Your task to perform on an android device: refresh tabs in the chrome app Image 0: 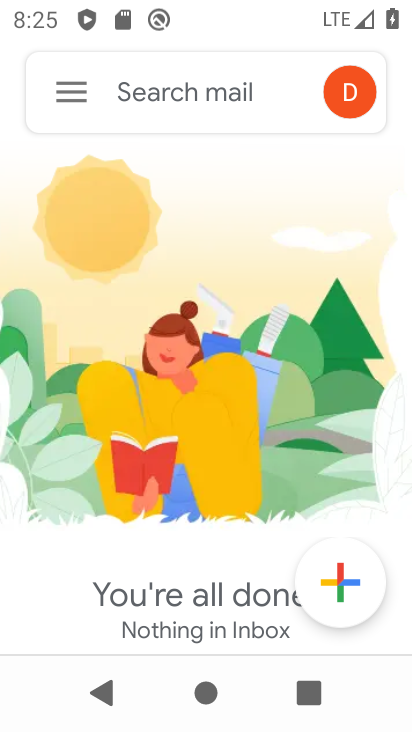
Step 0: drag from (329, 518) to (45, 32)
Your task to perform on an android device: refresh tabs in the chrome app Image 1: 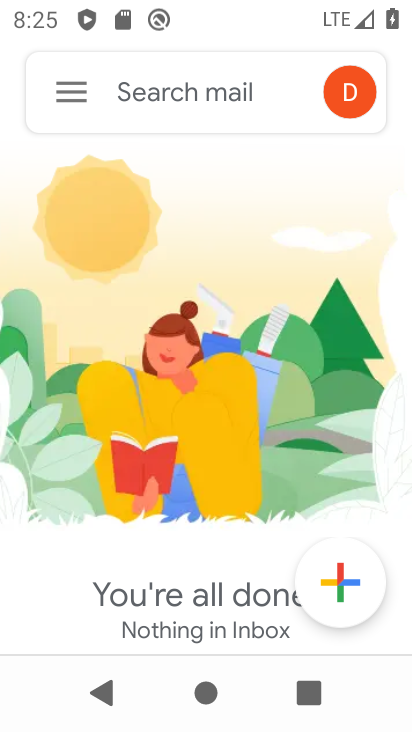
Step 1: drag from (286, 535) to (7, 9)
Your task to perform on an android device: refresh tabs in the chrome app Image 2: 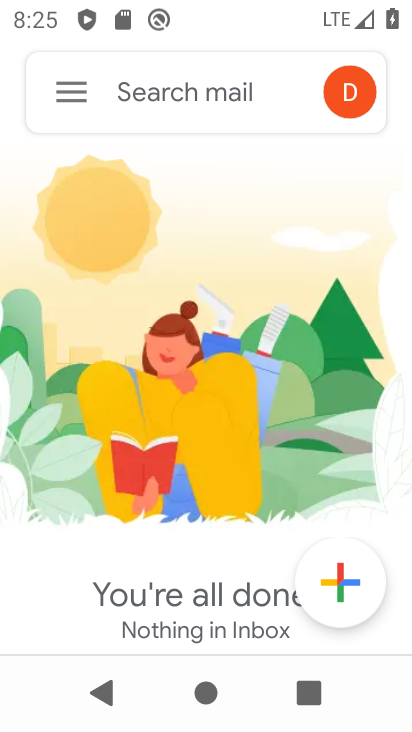
Step 2: drag from (304, 459) to (57, 27)
Your task to perform on an android device: refresh tabs in the chrome app Image 3: 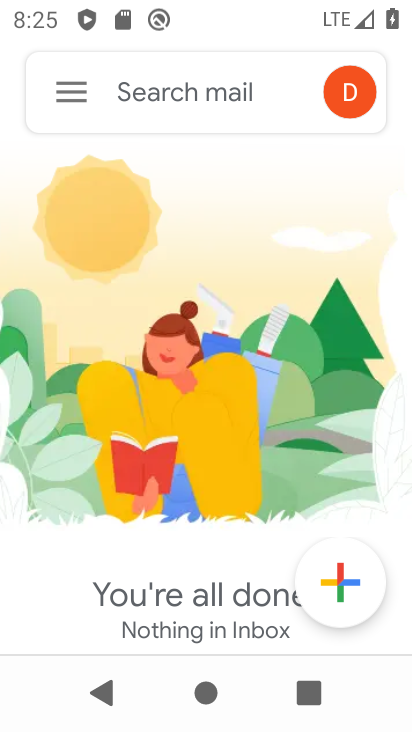
Step 3: drag from (245, 440) to (45, 6)
Your task to perform on an android device: refresh tabs in the chrome app Image 4: 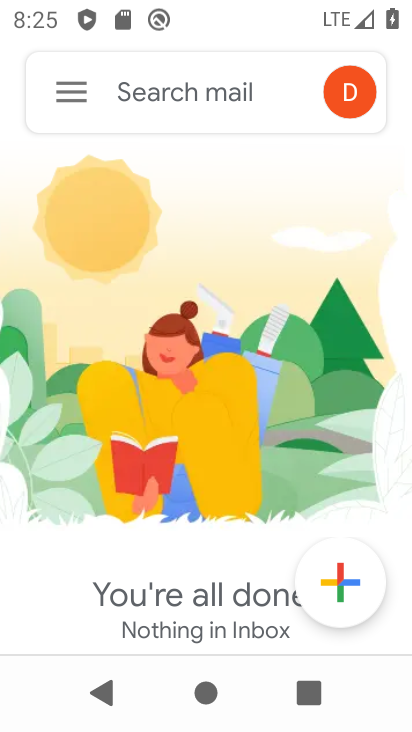
Step 4: drag from (233, 433) to (60, 32)
Your task to perform on an android device: refresh tabs in the chrome app Image 5: 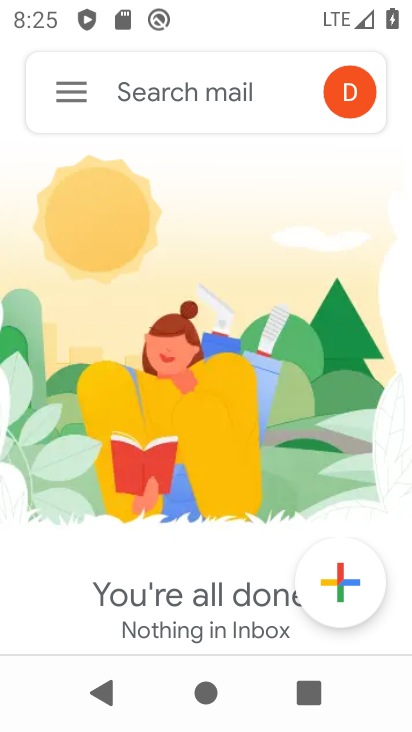
Step 5: drag from (205, 438) to (88, 57)
Your task to perform on an android device: refresh tabs in the chrome app Image 6: 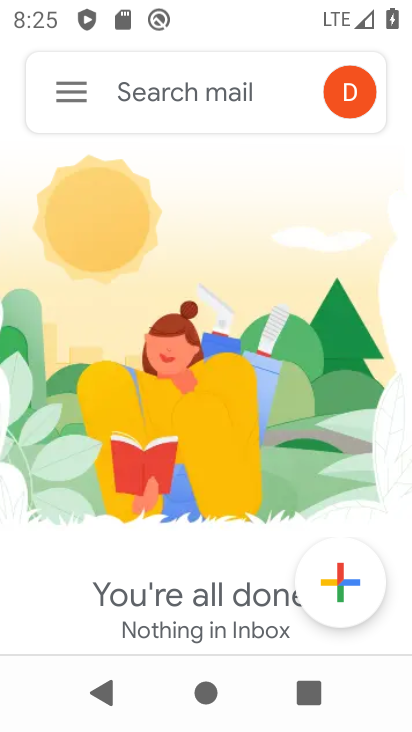
Step 6: drag from (285, 414) to (114, 31)
Your task to perform on an android device: refresh tabs in the chrome app Image 7: 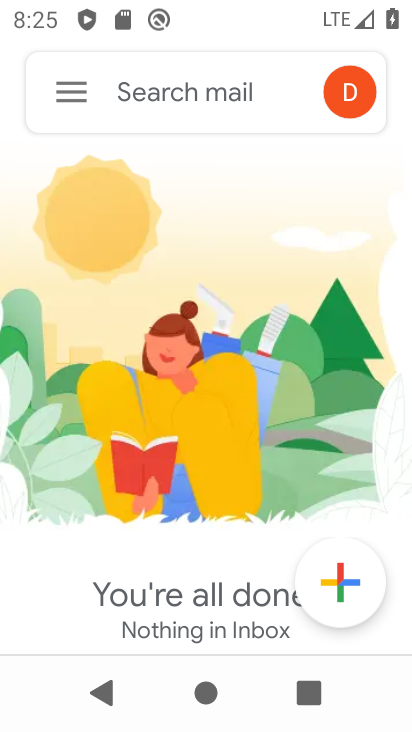
Step 7: drag from (298, 614) to (169, 128)
Your task to perform on an android device: refresh tabs in the chrome app Image 8: 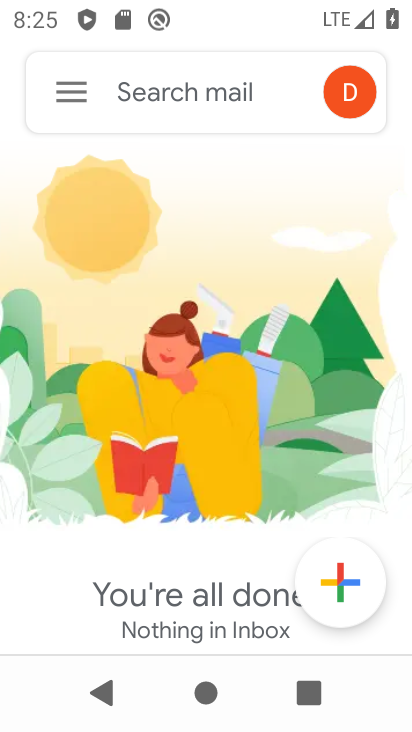
Step 8: click (60, 76)
Your task to perform on an android device: refresh tabs in the chrome app Image 9: 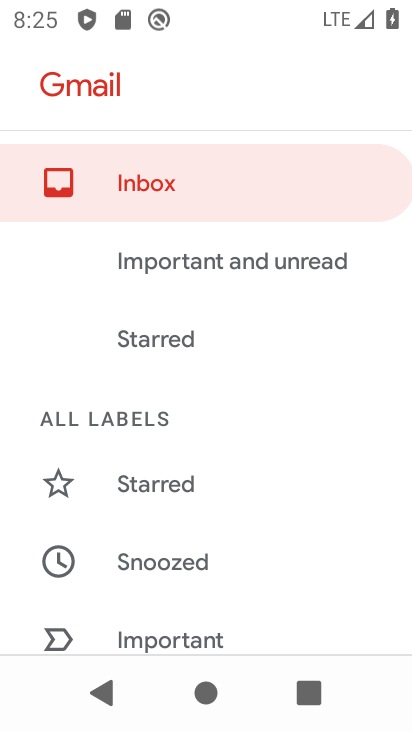
Step 9: press back button
Your task to perform on an android device: refresh tabs in the chrome app Image 10: 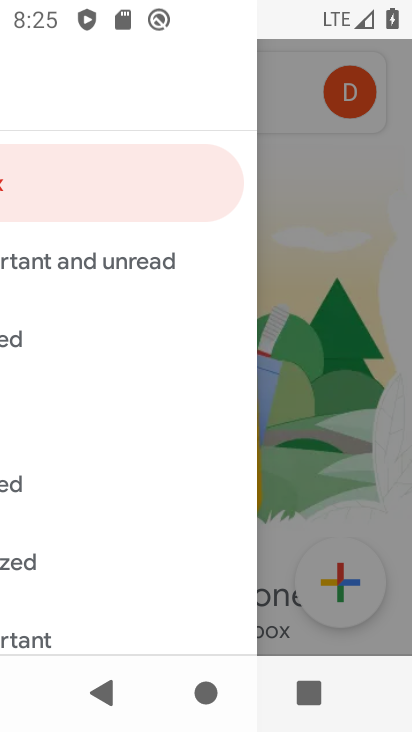
Step 10: press back button
Your task to perform on an android device: refresh tabs in the chrome app Image 11: 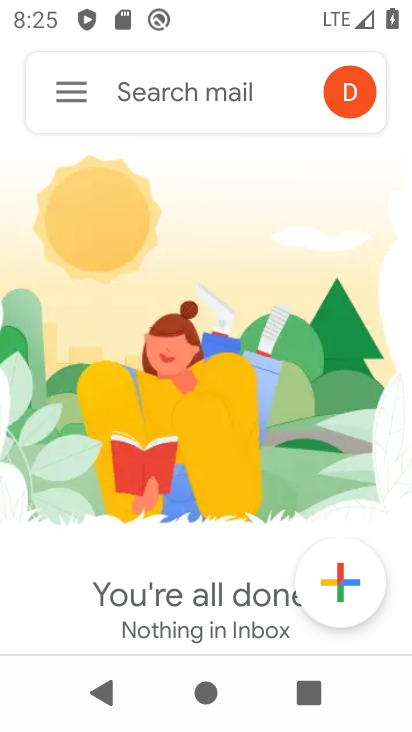
Step 11: press back button
Your task to perform on an android device: refresh tabs in the chrome app Image 12: 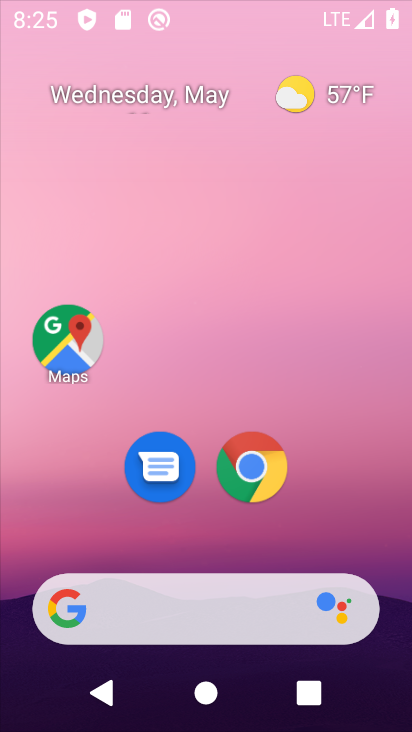
Step 12: press back button
Your task to perform on an android device: refresh tabs in the chrome app Image 13: 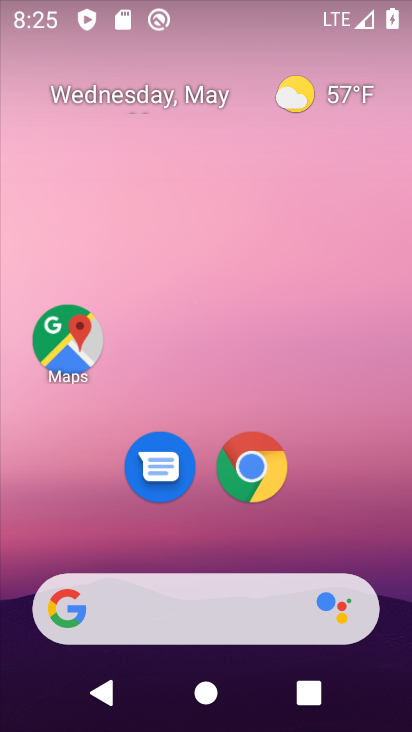
Step 13: press back button
Your task to perform on an android device: refresh tabs in the chrome app Image 14: 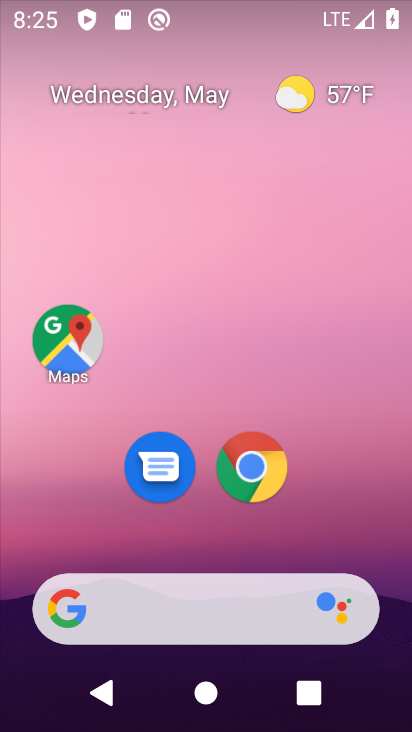
Step 14: drag from (114, 108) to (115, 13)
Your task to perform on an android device: refresh tabs in the chrome app Image 15: 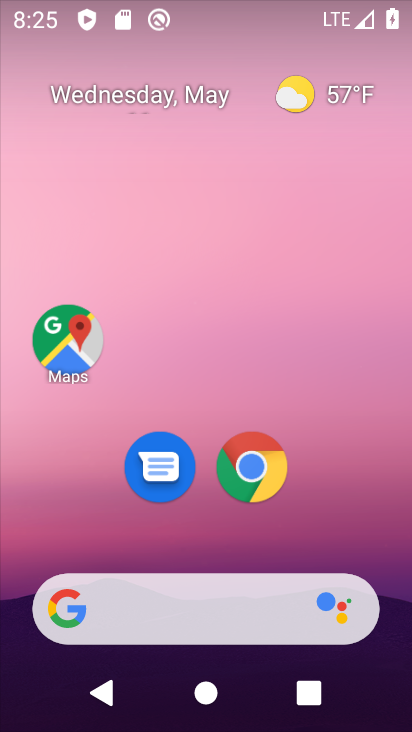
Step 15: drag from (228, 465) to (126, 57)
Your task to perform on an android device: refresh tabs in the chrome app Image 16: 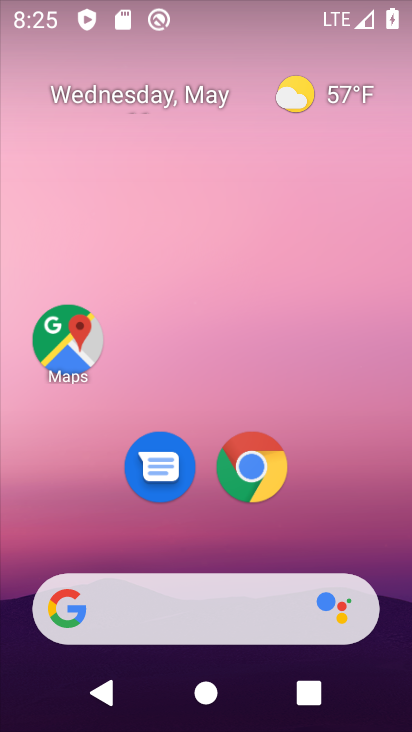
Step 16: drag from (294, 431) to (246, 30)
Your task to perform on an android device: refresh tabs in the chrome app Image 17: 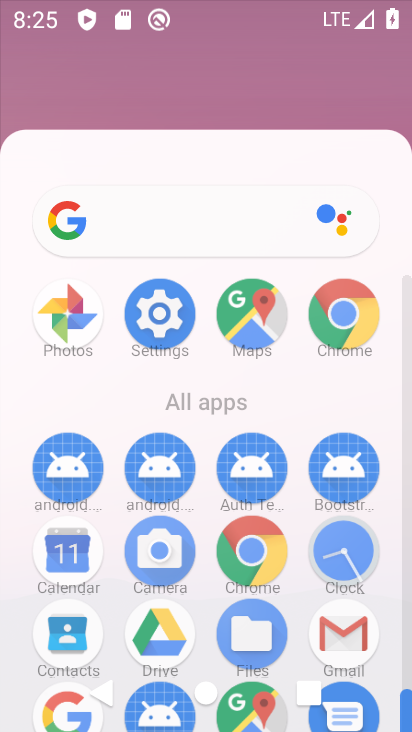
Step 17: drag from (288, 500) to (63, 1)
Your task to perform on an android device: refresh tabs in the chrome app Image 18: 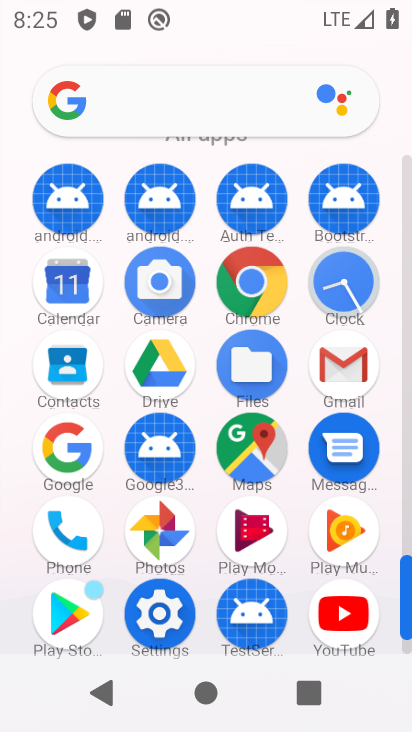
Step 18: click (242, 290)
Your task to perform on an android device: refresh tabs in the chrome app Image 19: 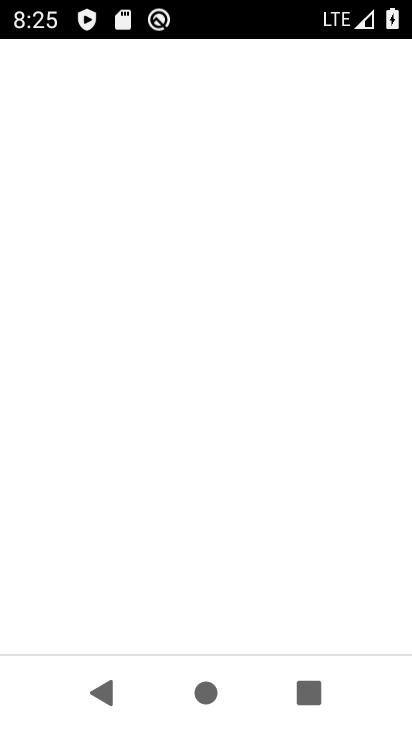
Step 19: click (243, 289)
Your task to perform on an android device: refresh tabs in the chrome app Image 20: 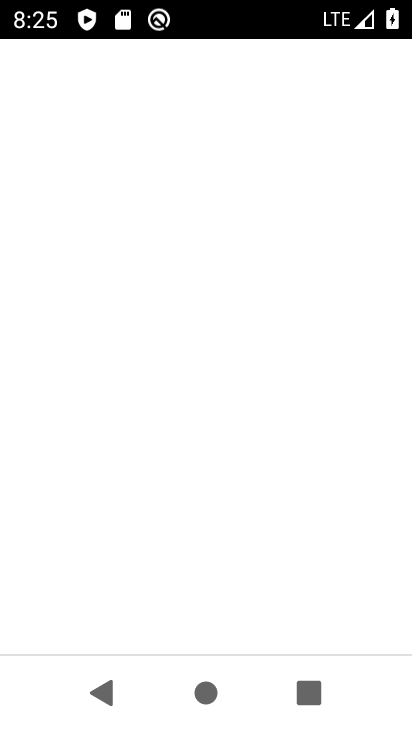
Step 20: click (250, 306)
Your task to perform on an android device: refresh tabs in the chrome app Image 21: 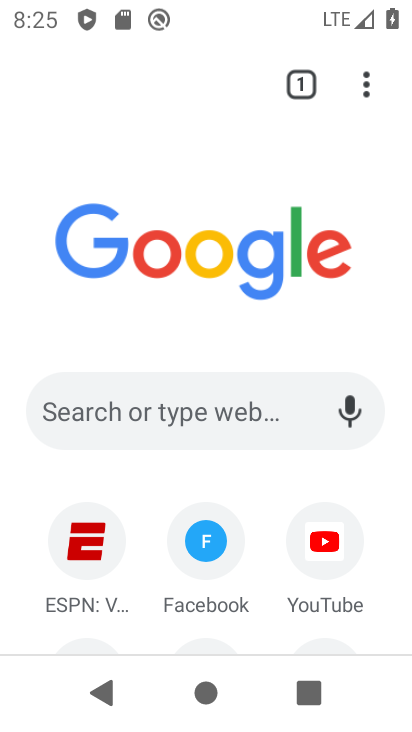
Step 21: drag from (283, 424) to (171, 17)
Your task to perform on an android device: refresh tabs in the chrome app Image 22: 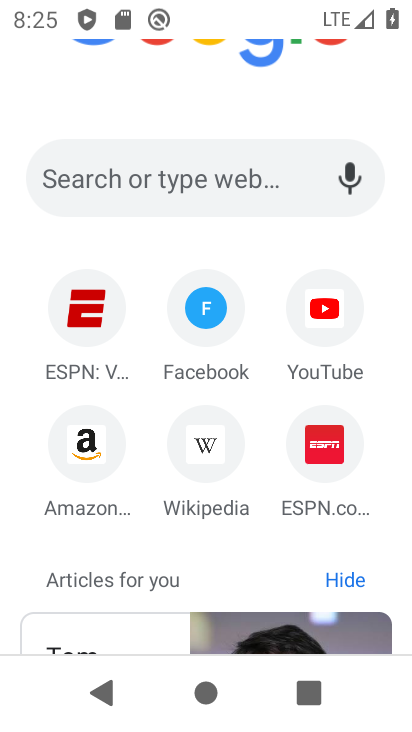
Step 22: drag from (188, 319) to (136, 34)
Your task to perform on an android device: refresh tabs in the chrome app Image 23: 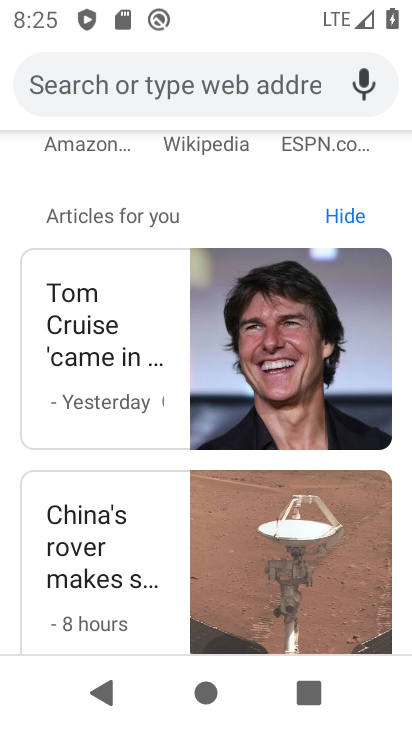
Step 23: drag from (297, 417) to (176, 51)
Your task to perform on an android device: refresh tabs in the chrome app Image 24: 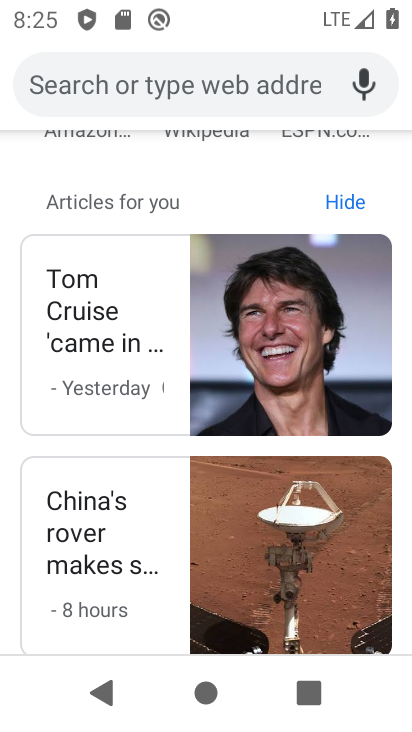
Step 24: drag from (198, 376) to (223, 440)
Your task to perform on an android device: refresh tabs in the chrome app Image 25: 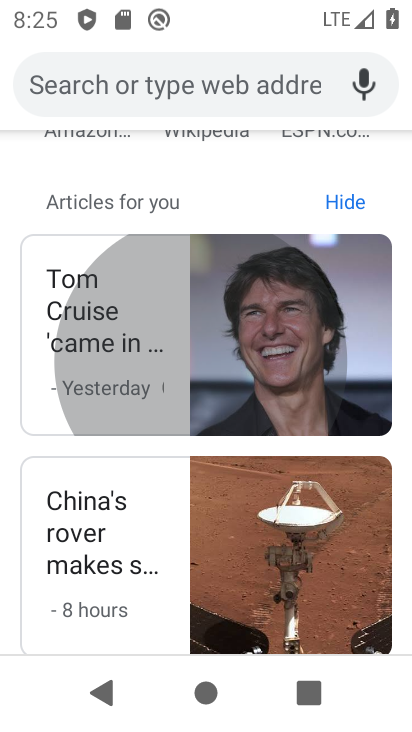
Step 25: drag from (258, 252) to (253, 425)
Your task to perform on an android device: refresh tabs in the chrome app Image 26: 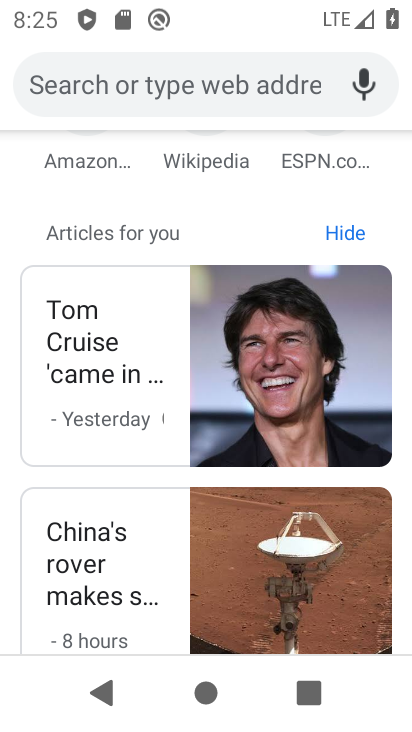
Step 26: drag from (191, 194) to (226, 451)
Your task to perform on an android device: refresh tabs in the chrome app Image 27: 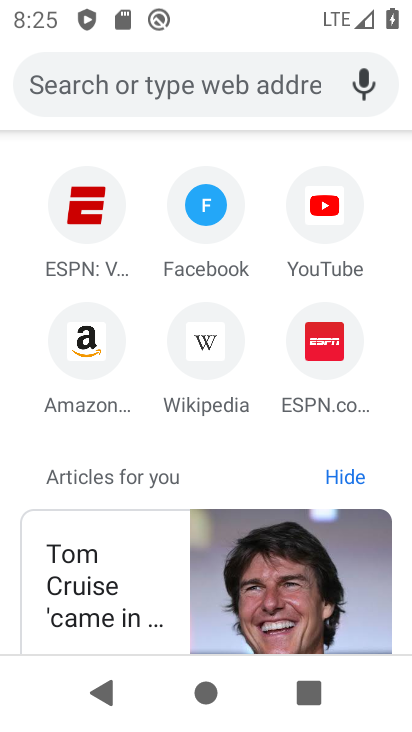
Step 27: drag from (196, 245) to (207, 512)
Your task to perform on an android device: refresh tabs in the chrome app Image 28: 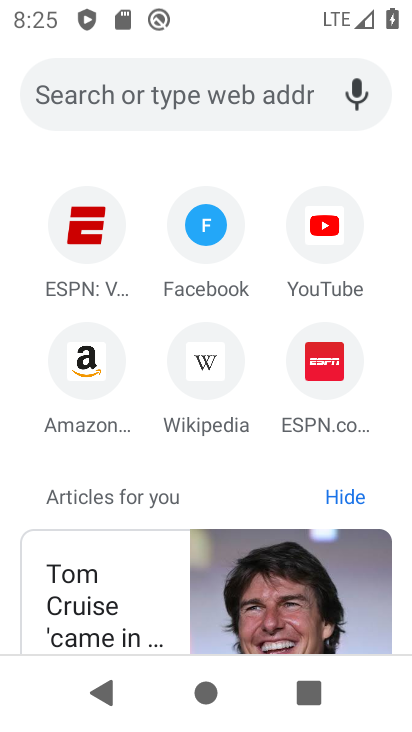
Step 28: drag from (206, 375) to (230, 525)
Your task to perform on an android device: refresh tabs in the chrome app Image 29: 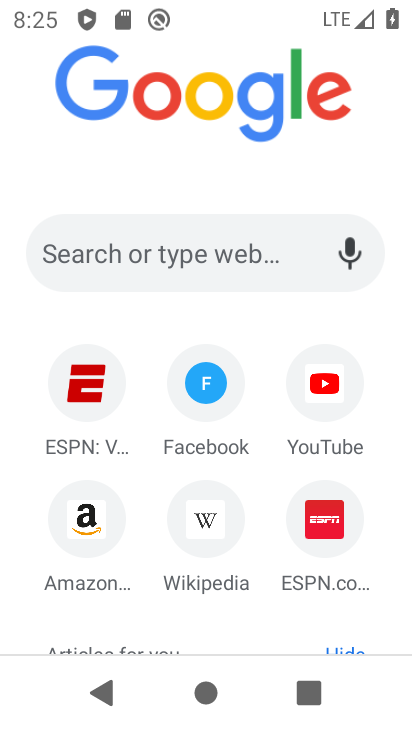
Step 29: drag from (170, 264) to (187, 544)
Your task to perform on an android device: refresh tabs in the chrome app Image 30: 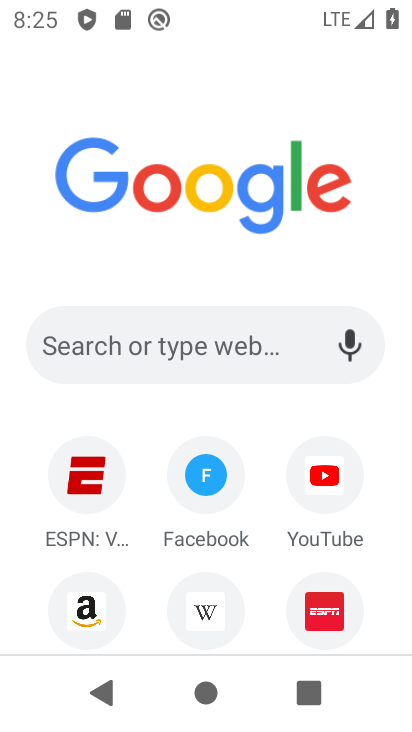
Step 30: drag from (181, 176) to (215, 556)
Your task to perform on an android device: refresh tabs in the chrome app Image 31: 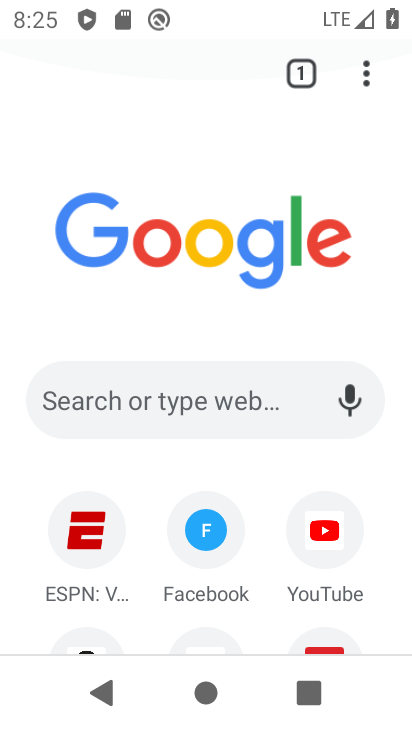
Step 31: drag from (238, 522) to (250, 557)
Your task to perform on an android device: refresh tabs in the chrome app Image 32: 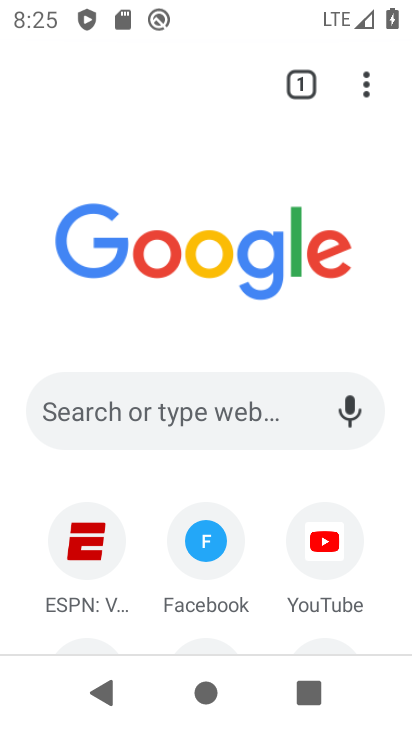
Step 32: drag from (178, 218) to (218, 433)
Your task to perform on an android device: refresh tabs in the chrome app Image 33: 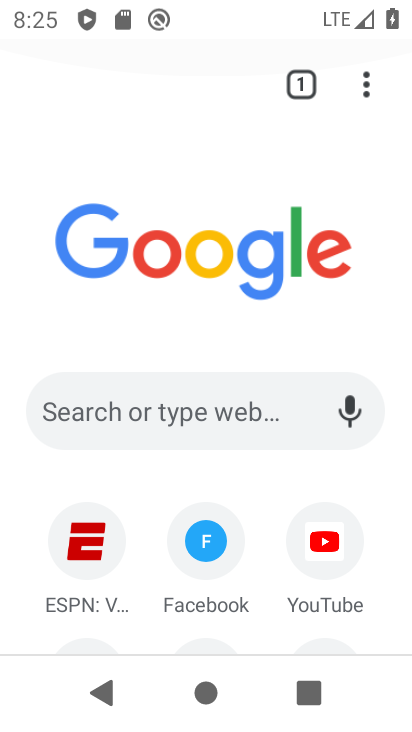
Step 33: drag from (202, 214) to (247, 509)
Your task to perform on an android device: refresh tabs in the chrome app Image 34: 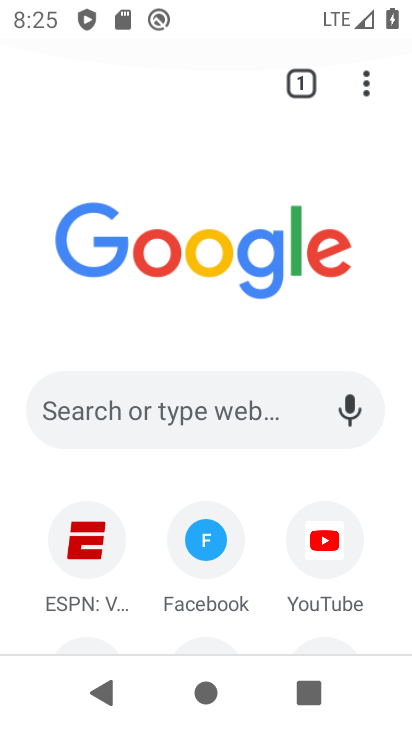
Step 34: drag from (203, 447) to (243, 580)
Your task to perform on an android device: refresh tabs in the chrome app Image 35: 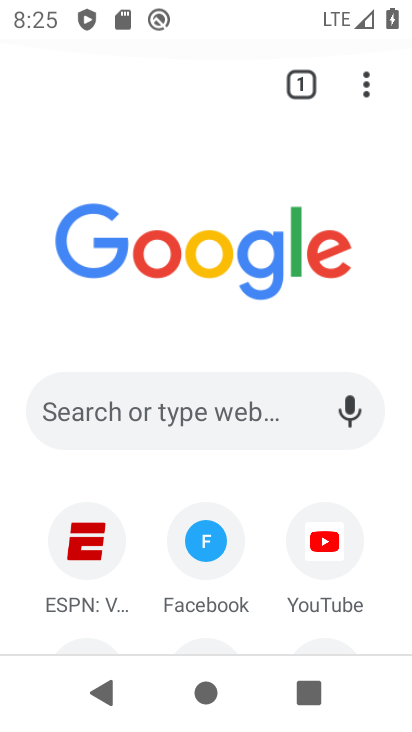
Step 35: drag from (229, 511) to (129, 70)
Your task to perform on an android device: refresh tabs in the chrome app Image 36: 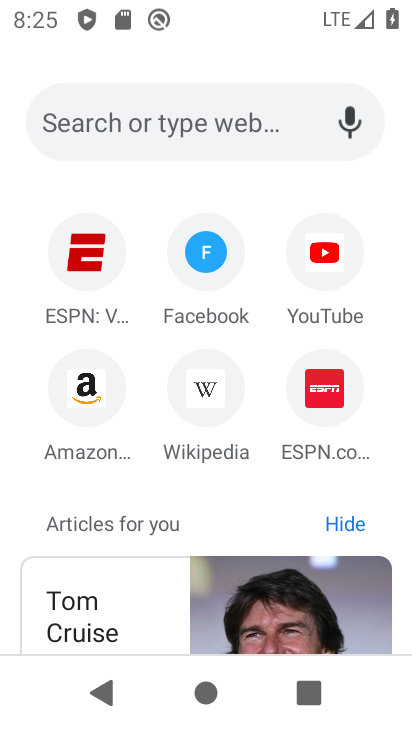
Step 36: drag from (175, 393) to (109, 101)
Your task to perform on an android device: refresh tabs in the chrome app Image 37: 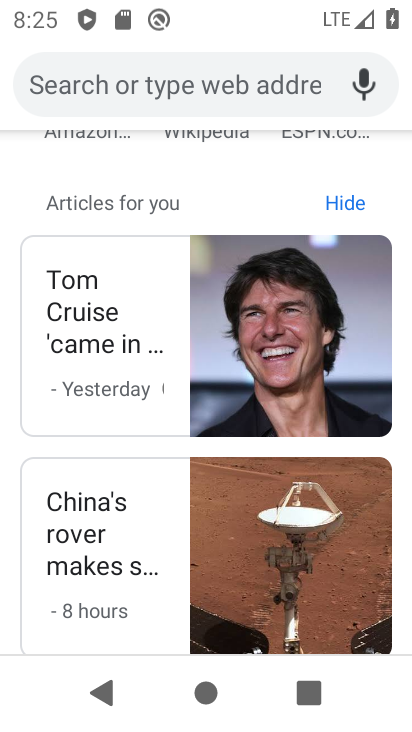
Step 37: drag from (226, 448) to (117, 0)
Your task to perform on an android device: refresh tabs in the chrome app Image 38: 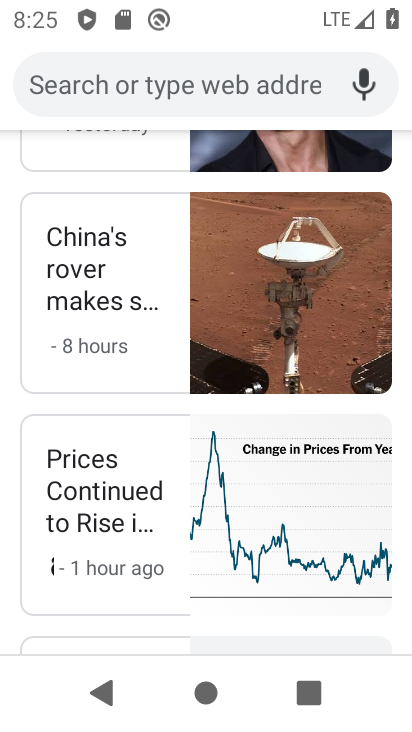
Step 38: drag from (264, 510) to (101, 17)
Your task to perform on an android device: refresh tabs in the chrome app Image 39: 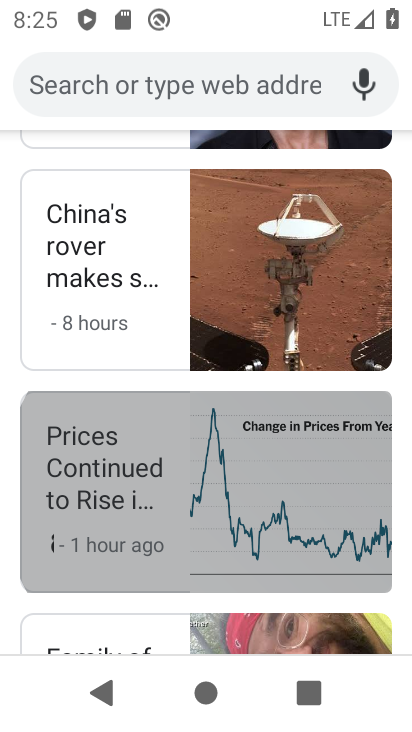
Step 39: drag from (224, 563) to (77, 44)
Your task to perform on an android device: refresh tabs in the chrome app Image 40: 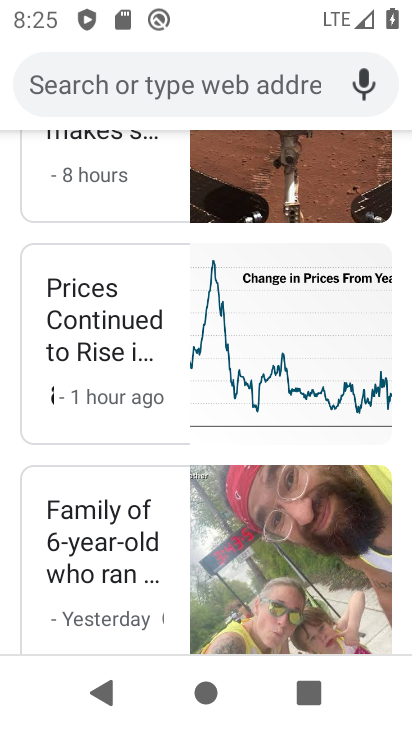
Step 40: drag from (279, 181) to (324, 592)
Your task to perform on an android device: refresh tabs in the chrome app Image 41: 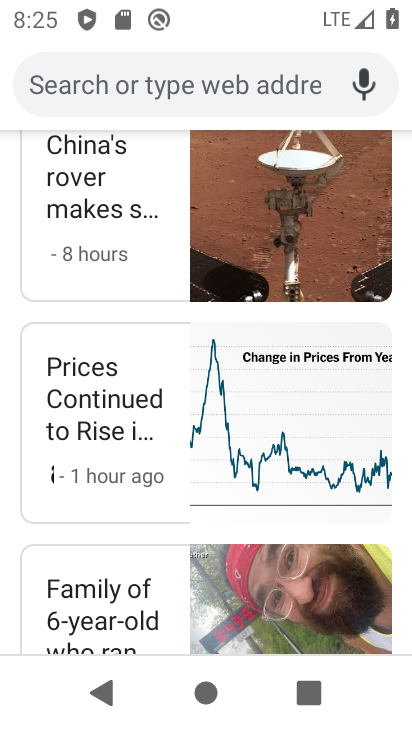
Step 41: drag from (280, 500) to (231, 481)
Your task to perform on an android device: refresh tabs in the chrome app Image 42: 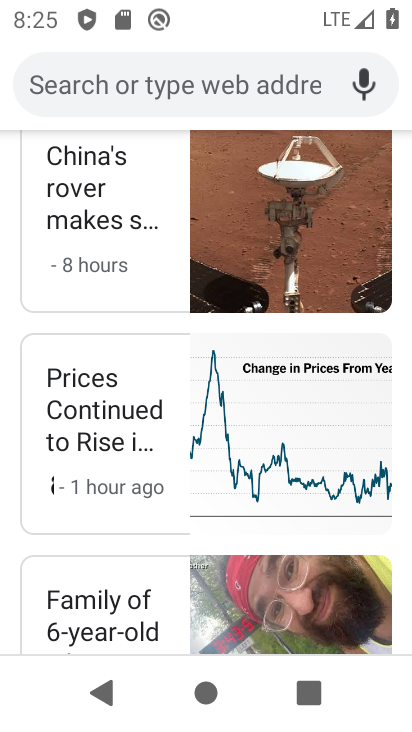
Step 42: drag from (213, 226) to (260, 575)
Your task to perform on an android device: refresh tabs in the chrome app Image 43: 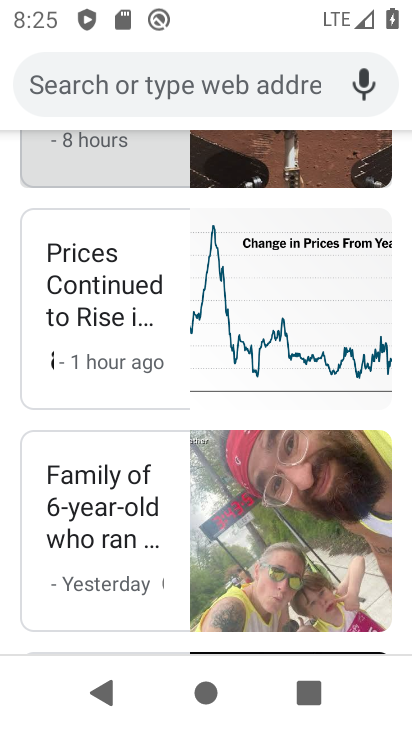
Step 43: drag from (220, 220) to (258, 598)
Your task to perform on an android device: refresh tabs in the chrome app Image 44: 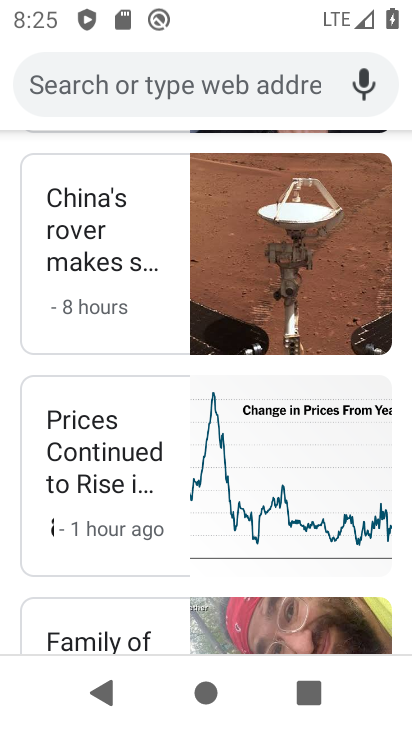
Step 44: drag from (259, 505) to (234, 598)
Your task to perform on an android device: refresh tabs in the chrome app Image 45: 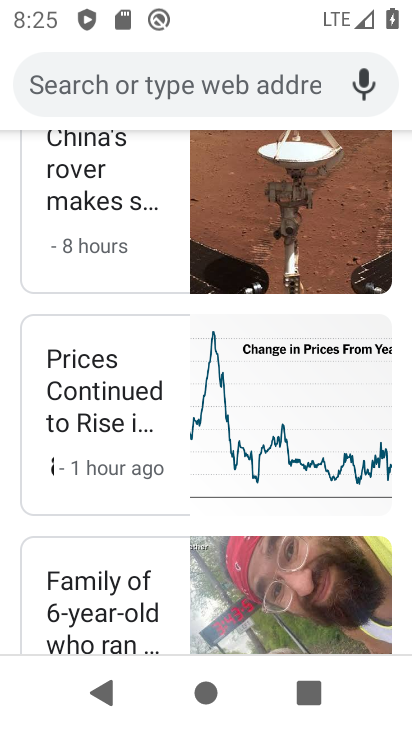
Step 45: drag from (180, 260) to (259, 600)
Your task to perform on an android device: refresh tabs in the chrome app Image 46: 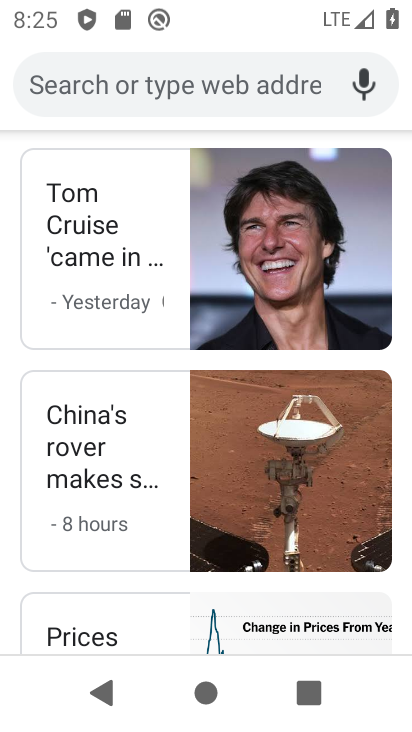
Step 46: drag from (191, 202) to (202, 523)
Your task to perform on an android device: refresh tabs in the chrome app Image 47: 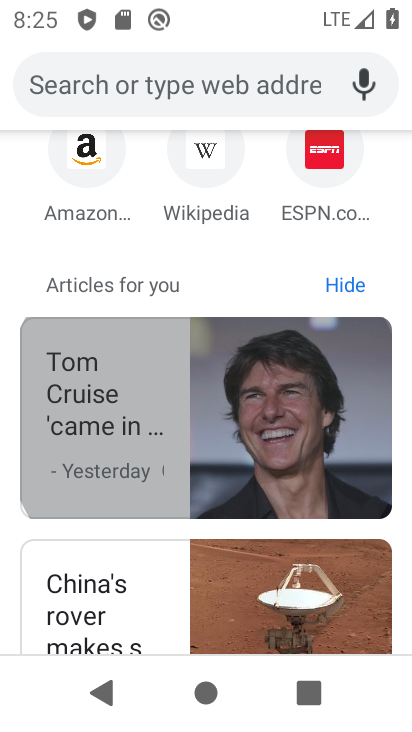
Step 47: drag from (177, 165) to (217, 602)
Your task to perform on an android device: refresh tabs in the chrome app Image 48: 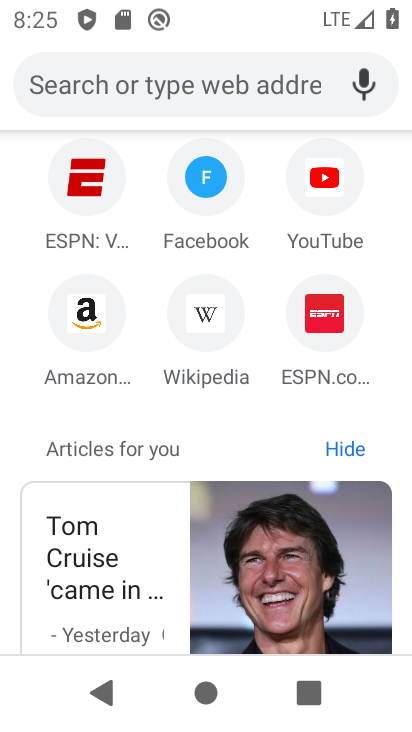
Step 48: drag from (110, 191) to (176, 589)
Your task to perform on an android device: refresh tabs in the chrome app Image 49: 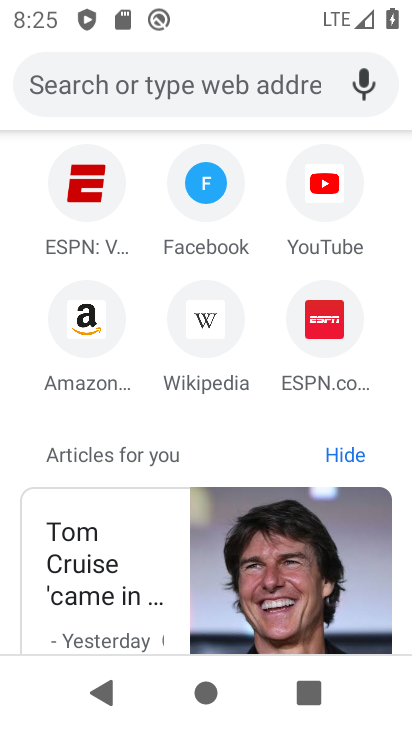
Step 49: drag from (64, 303) to (159, 521)
Your task to perform on an android device: refresh tabs in the chrome app Image 50: 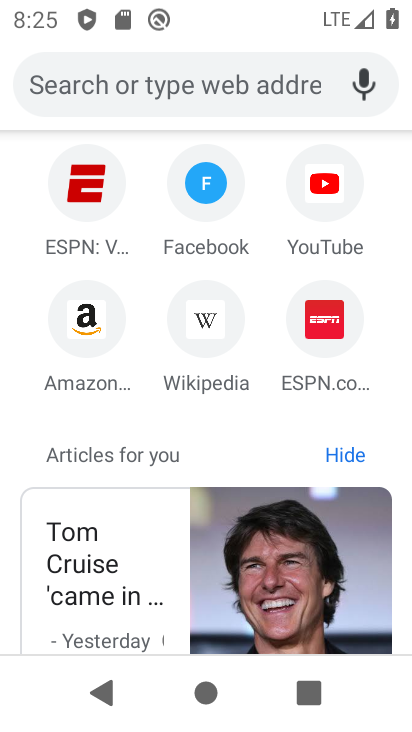
Step 50: drag from (205, 214) to (252, 577)
Your task to perform on an android device: refresh tabs in the chrome app Image 51: 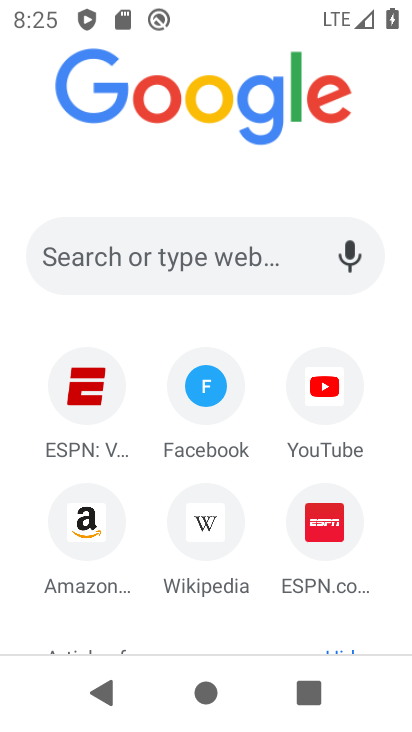
Step 51: drag from (229, 207) to (251, 358)
Your task to perform on an android device: refresh tabs in the chrome app Image 52: 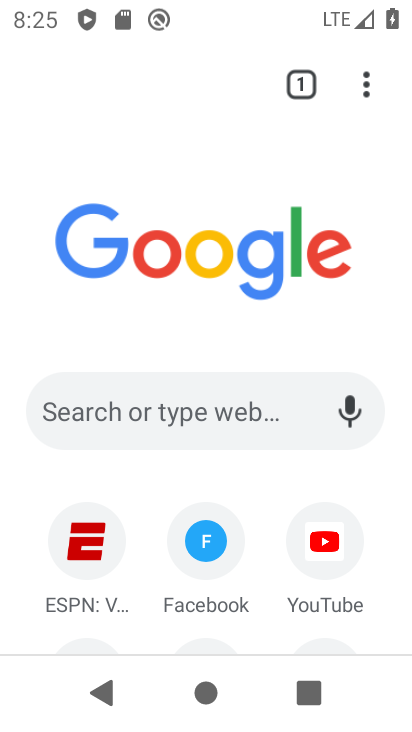
Step 52: click (371, 77)
Your task to perform on an android device: refresh tabs in the chrome app Image 53: 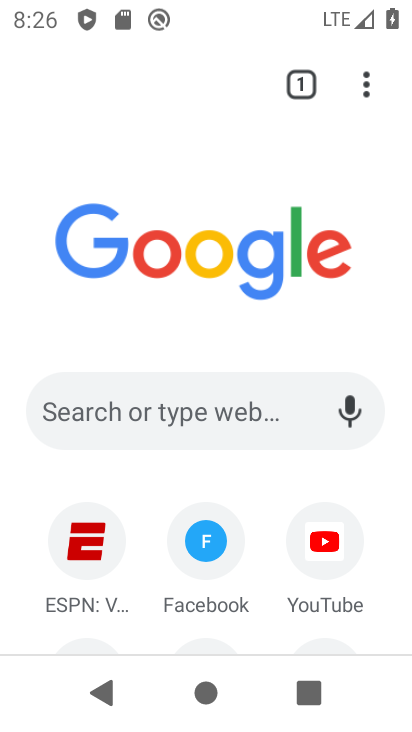
Step 53: click (363, 84)
Your task to perform on an android device: refresh tabs in the chrome app Image 54: 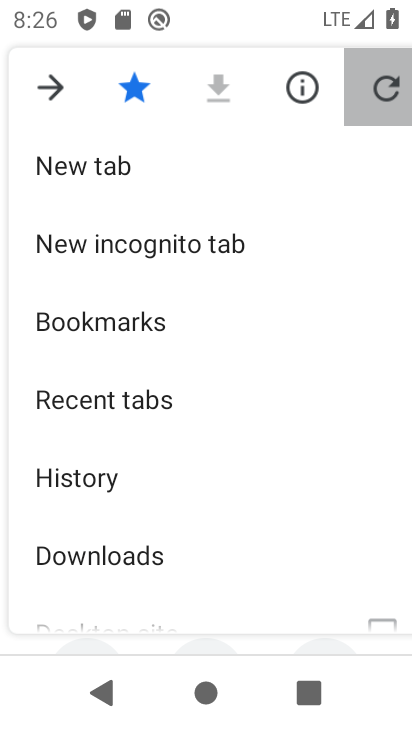
Step 54: click (382, 88)
Your task to perform on an android device: refresh tabs in the chrome app Image 55: 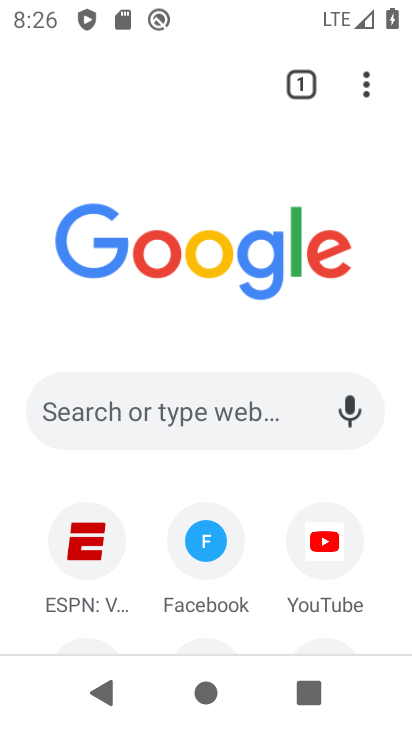
Step 55: click (381, 88)
Your task to perform on an android device: refresh tabs in the chrome app Image 56: 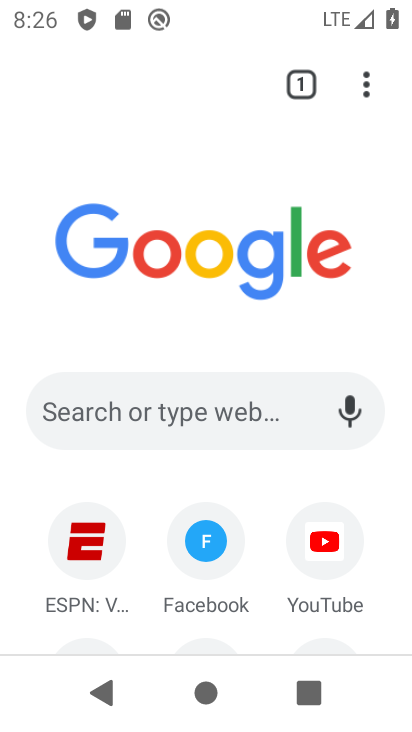
Step 56: task complete